Your task to perform on an android device: turn on notifications settings in the gmail app Image 0: 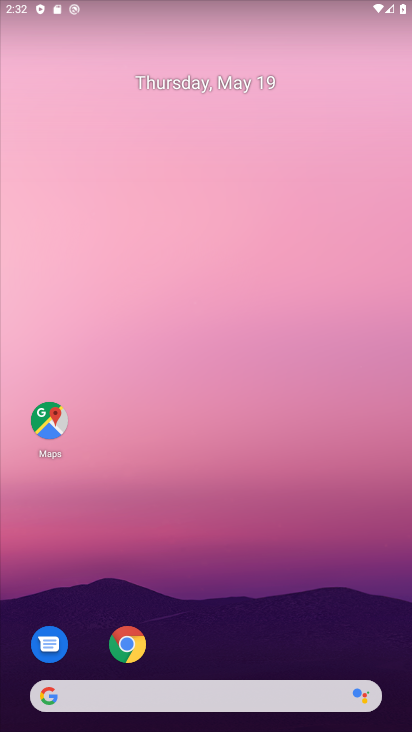
Step 0: drag from (223, 624) to (329, 234)
Your task to perform on an android device: turn on notifications settings in the gmail app Image 1: 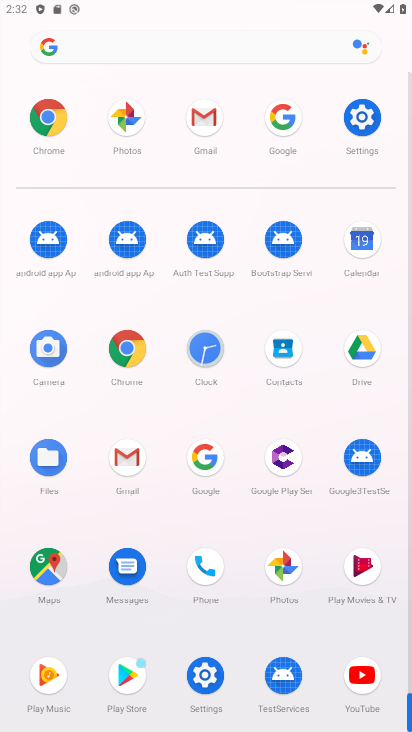
Step 1: click (194, 106)
Your task to perform on an android device: turn on notifications settings in the gmail app Image 2: 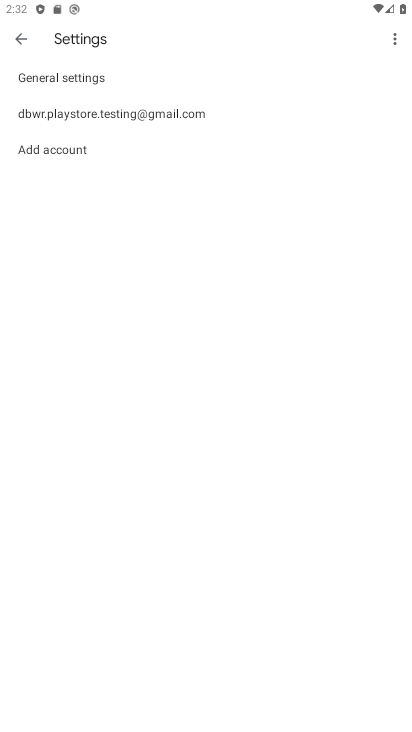
Step 2: click (93, 106)
Your task to perform on an android device: turn on notifications settings in the gmail app Image 3: 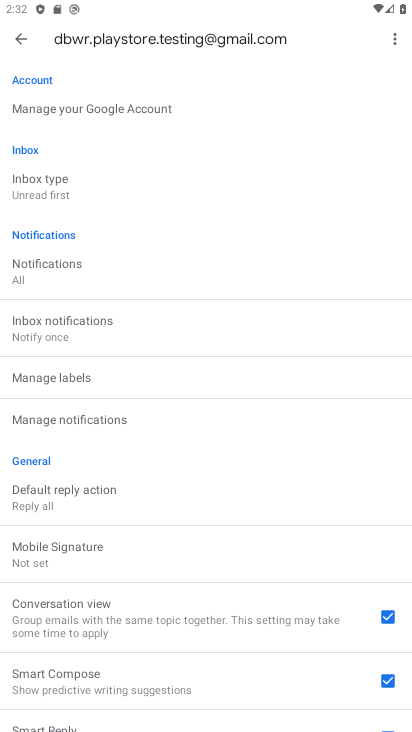
Step 3: click (46, 274)
Your task to perform on an android device: turn on notifications settings in the gmail app Image 4: 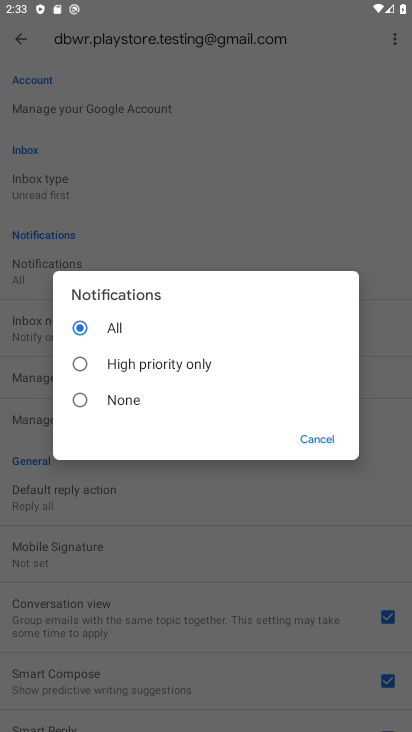
Step 4: task complete